Your task to perform on an android device: See recent photos Image 0: 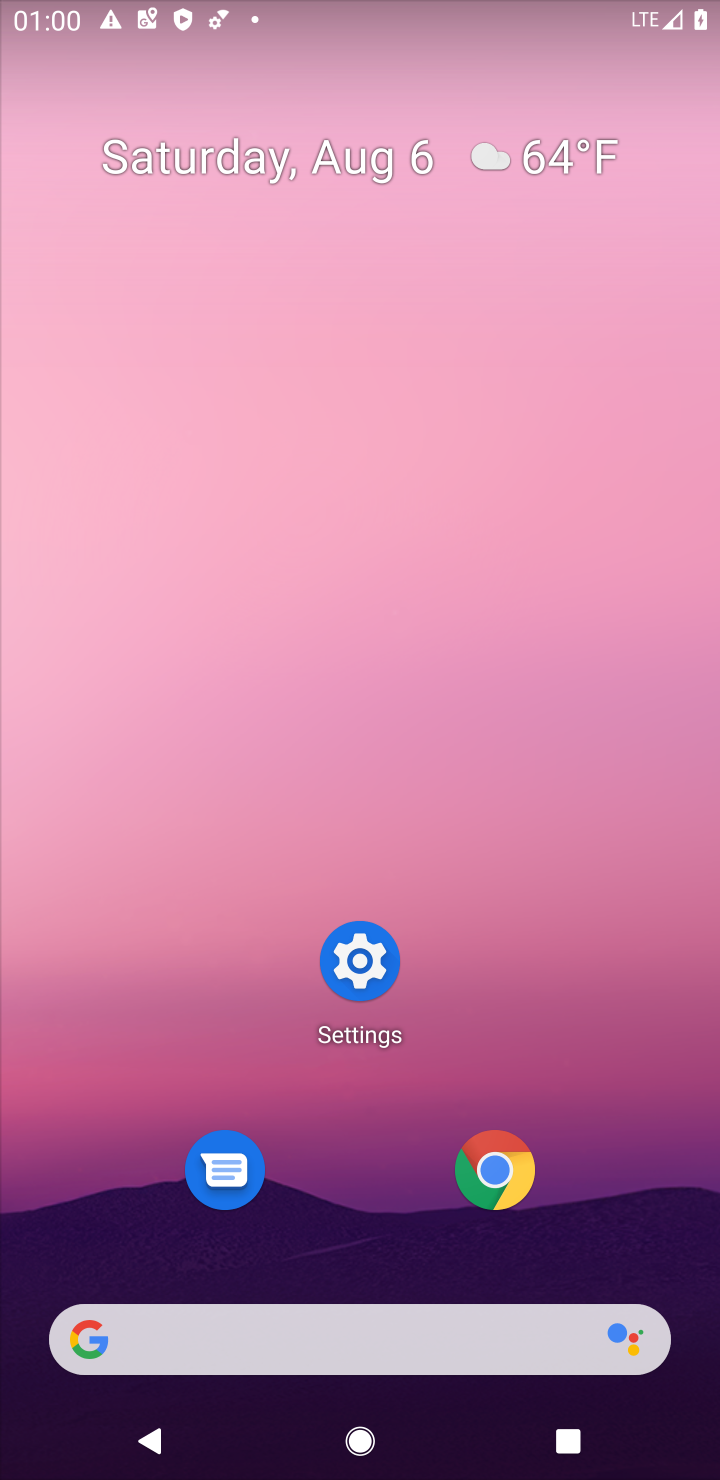
Step 0: drag from (514, 1010) to (580, 95)
Your task to perform on an android device: See recent photos Image 1: 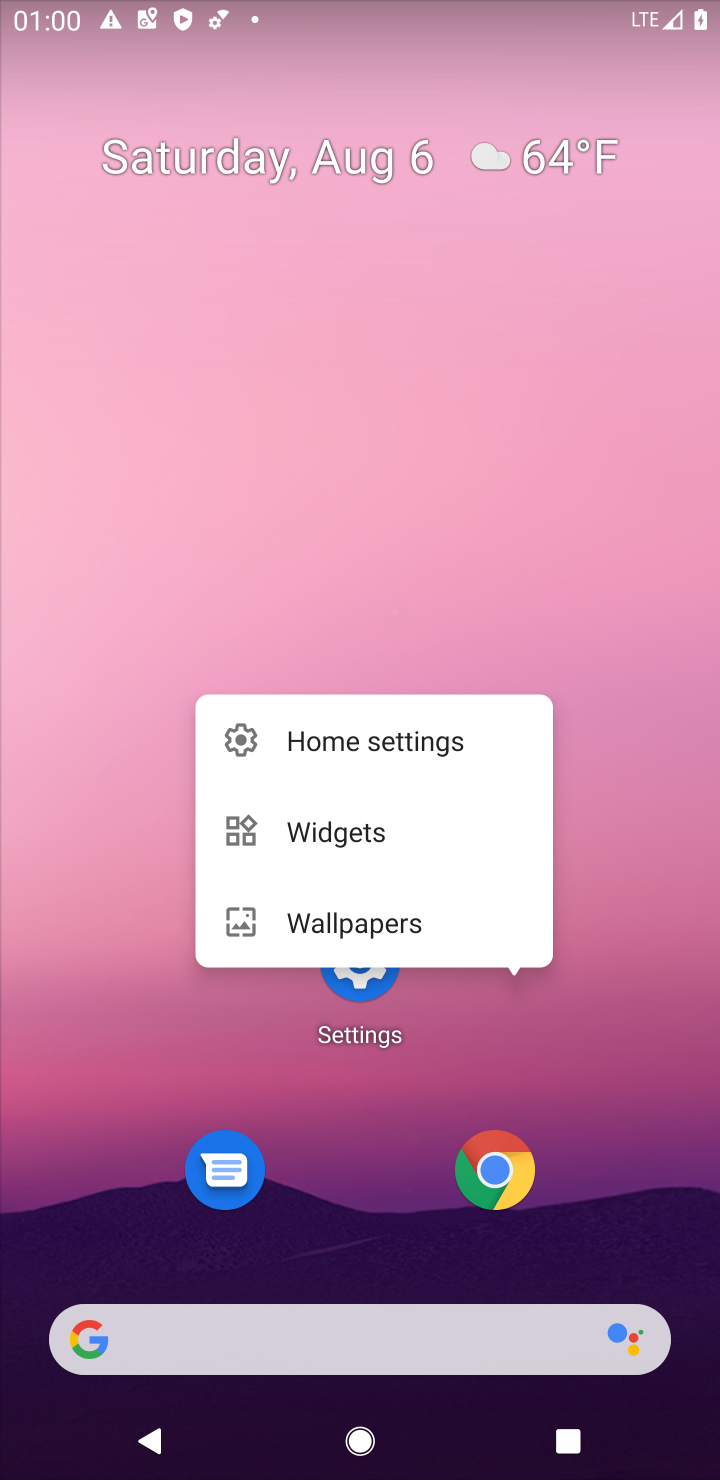
Step 1: click (87, 1192)
Your task to perform on an android device: See recent photos Image 2: 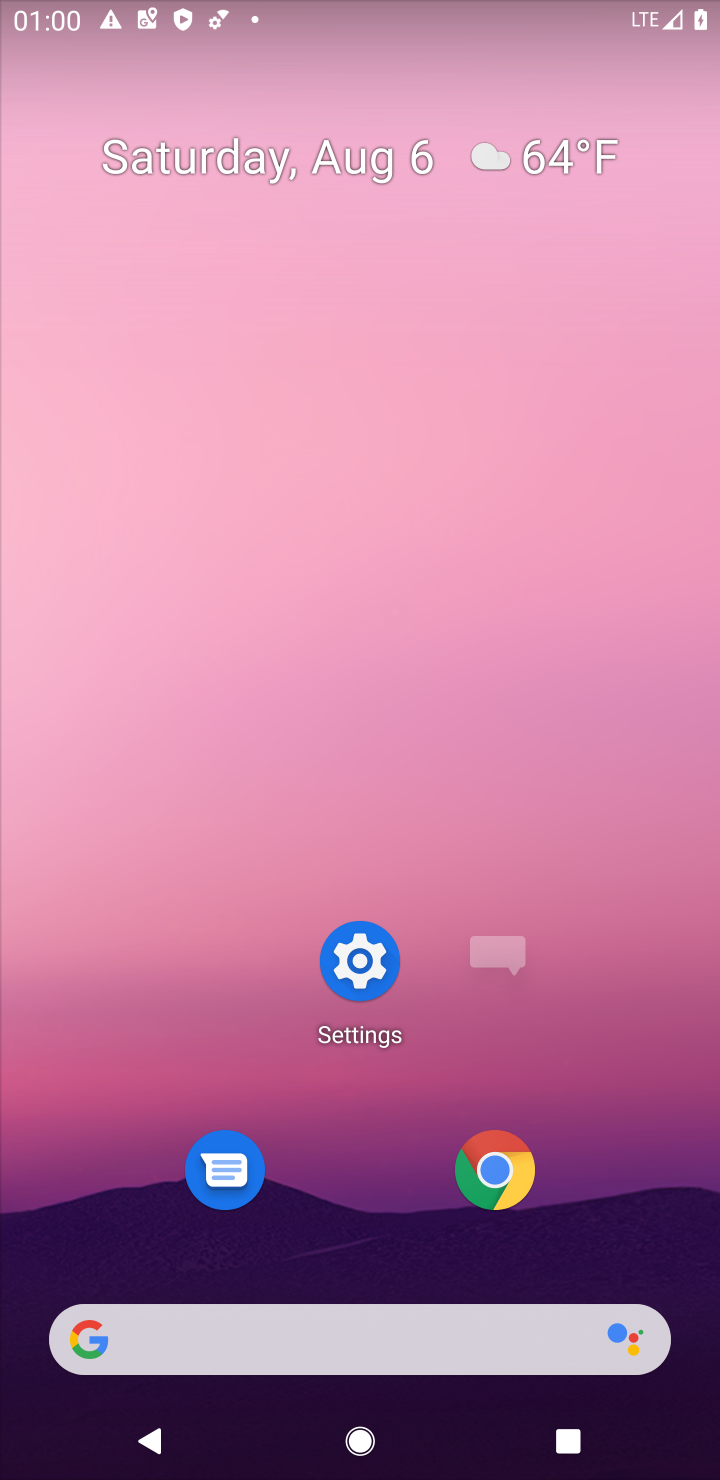
Step 2: click (87, 1192)
Your task to perform on an android device: See recent photos Image 3: 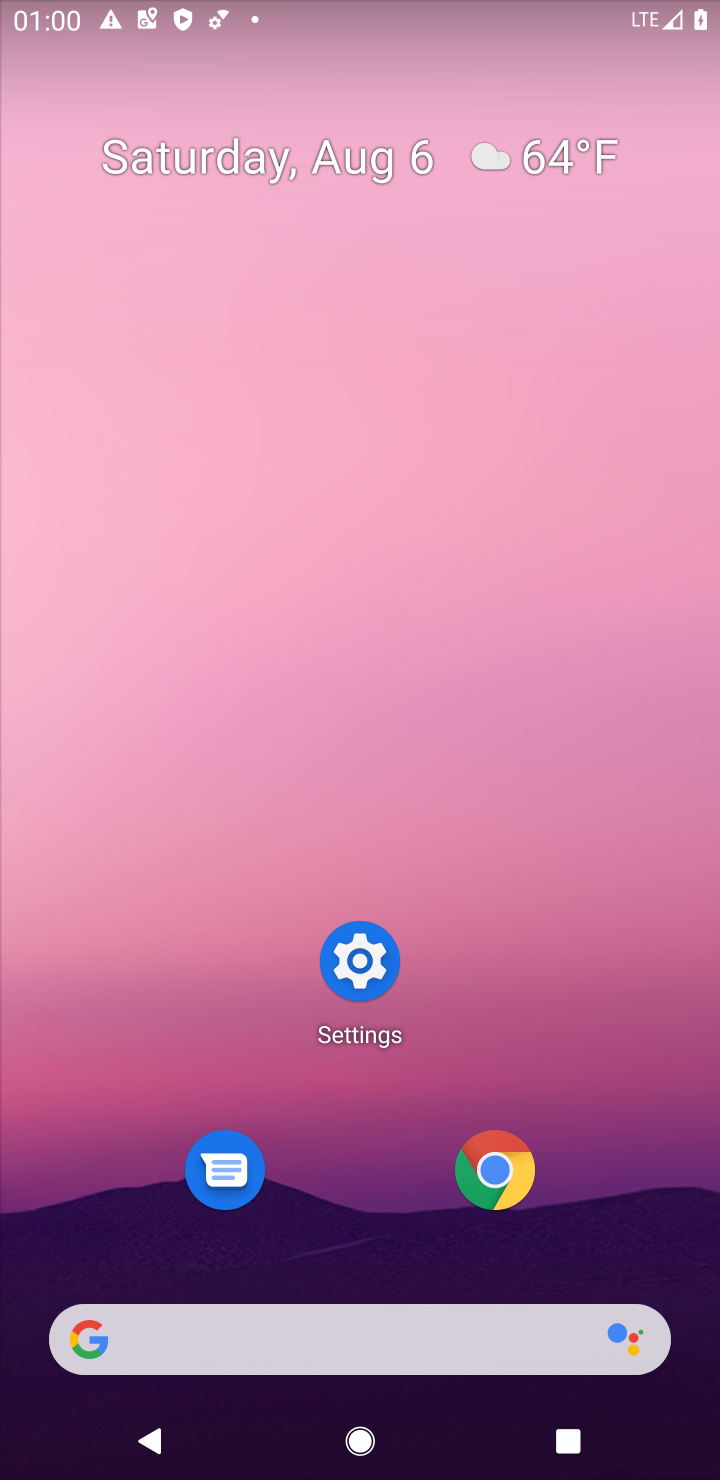
Step 3: drag from (95, 1155) to (230, 128)
Your task to perform on an android device: See recent photos Image 4: 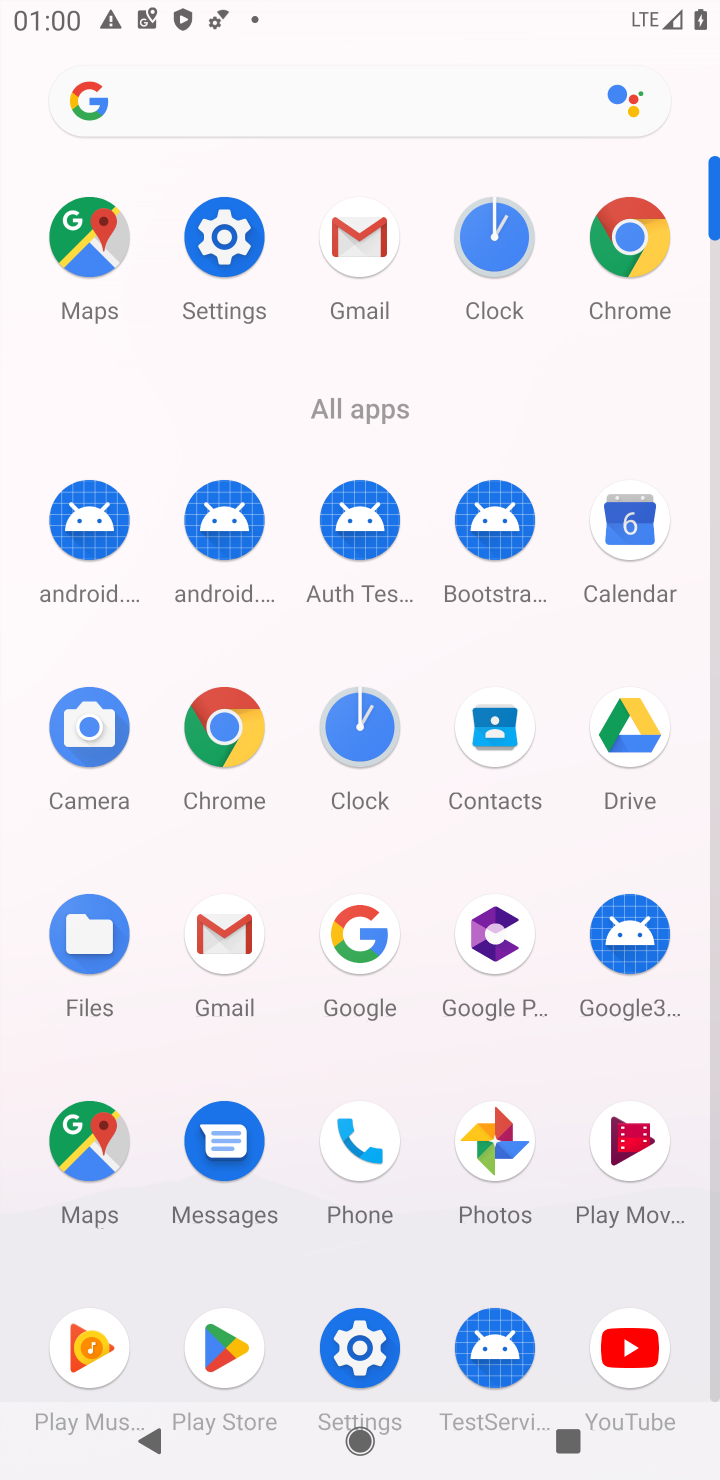
Step 4: click (482, 1148)
Your task to perform on an android device: See recent photos Image 5: 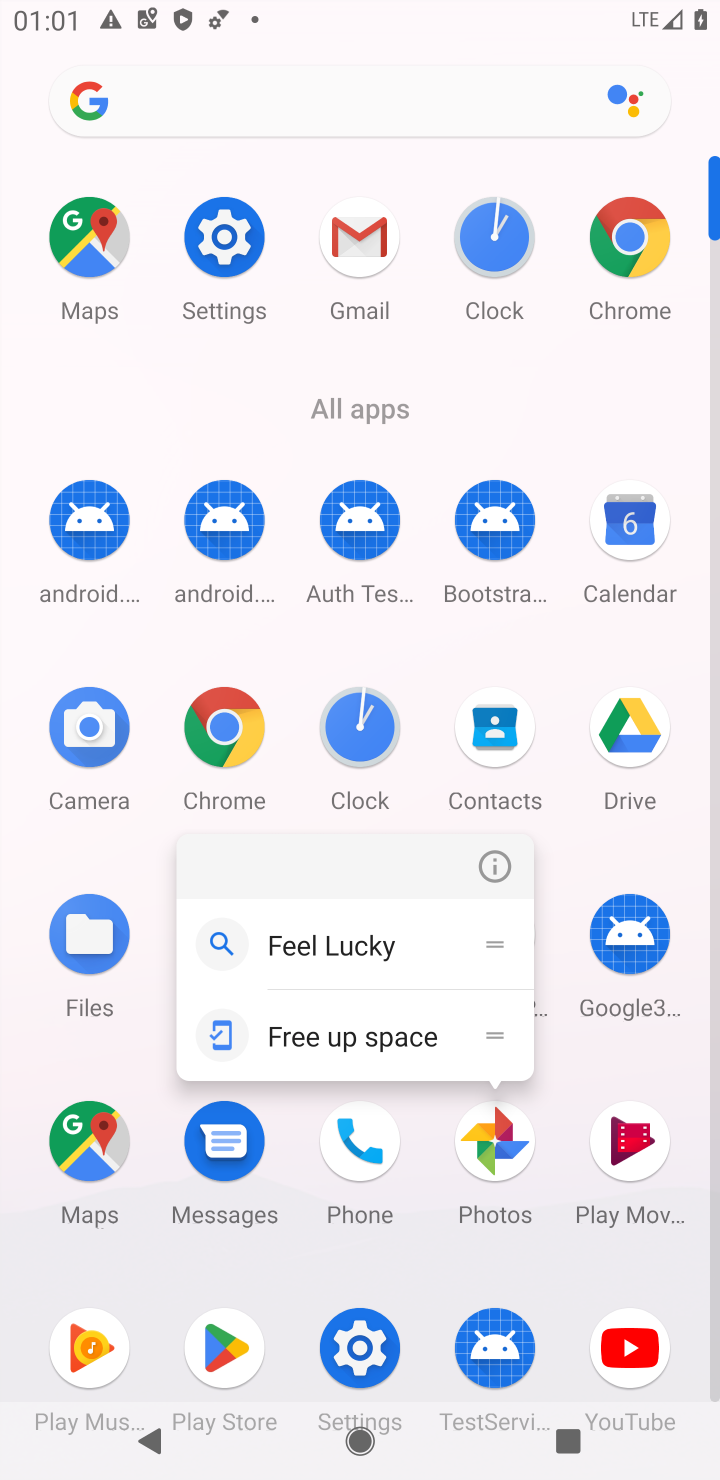
Step 5: click (472, 1128)
Your task to perform on an android device: See recent photos Image 6: 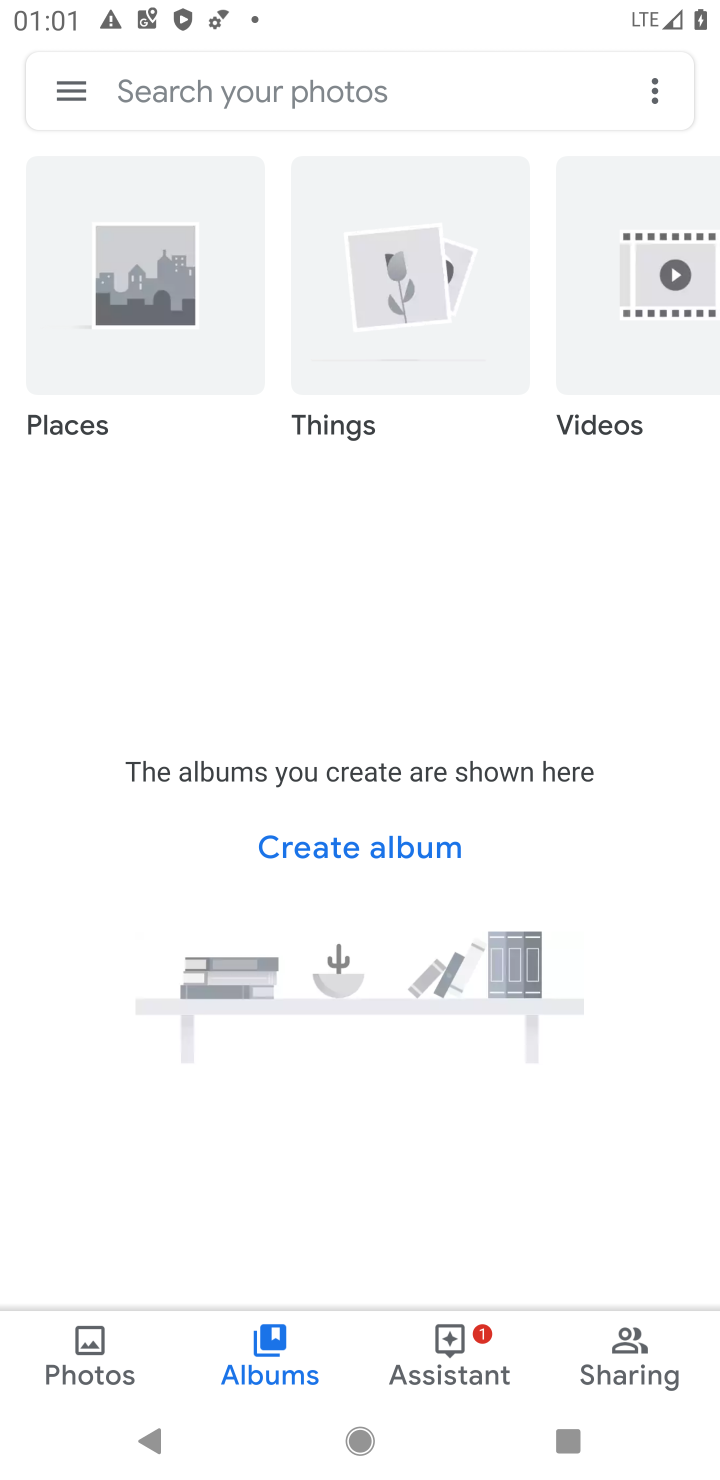
Step 6: click (94, 1336)
Your task to perform on an android device: See recent photos Image 7: 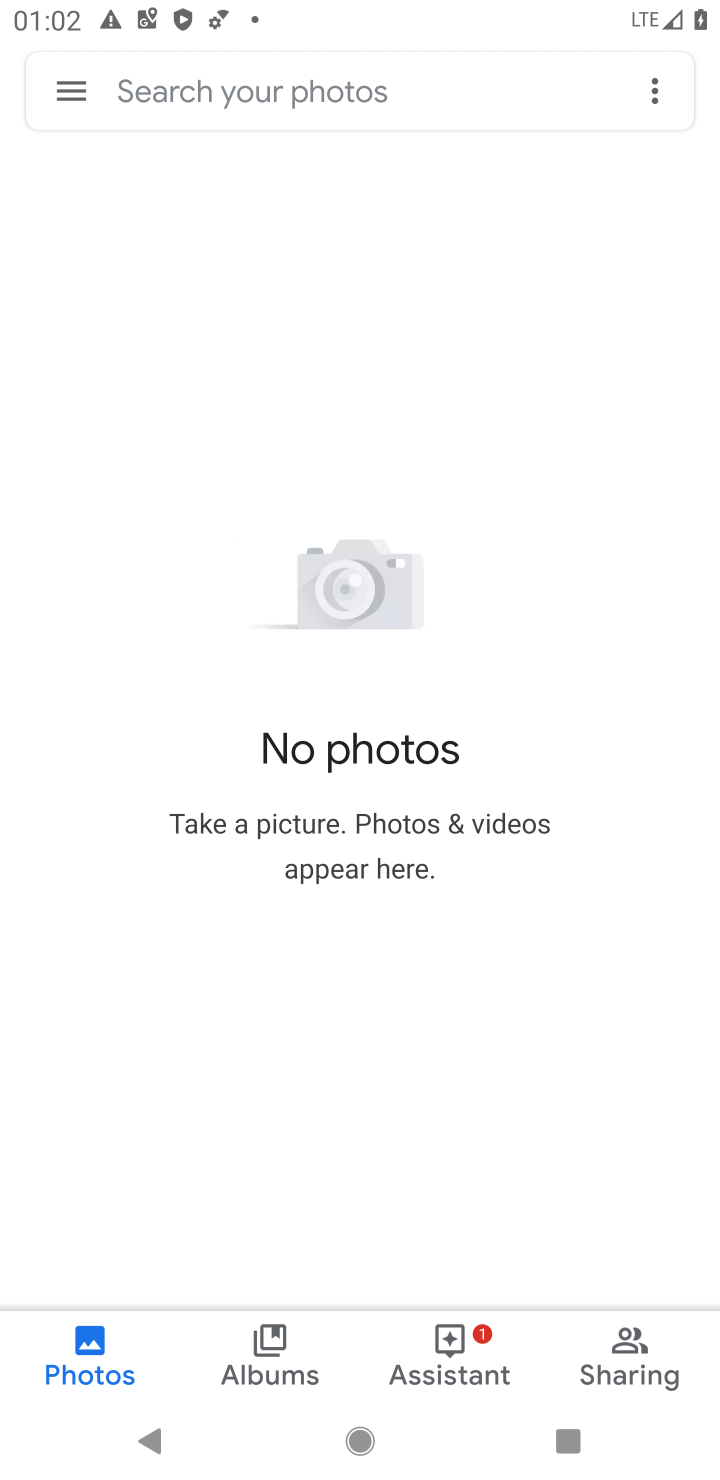
Step 7: task complete